Your task to perform on an android device: Go to Google Image 0: 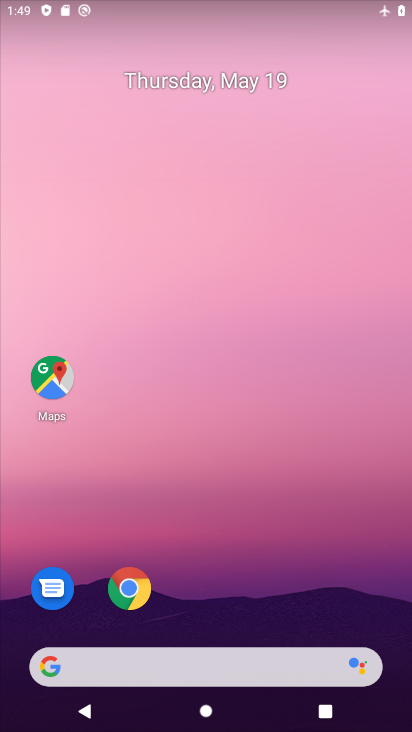
Step 0: drag from (205, 534) to (207, 52)
Your task to perform on an android device: Go to Google Image 1: 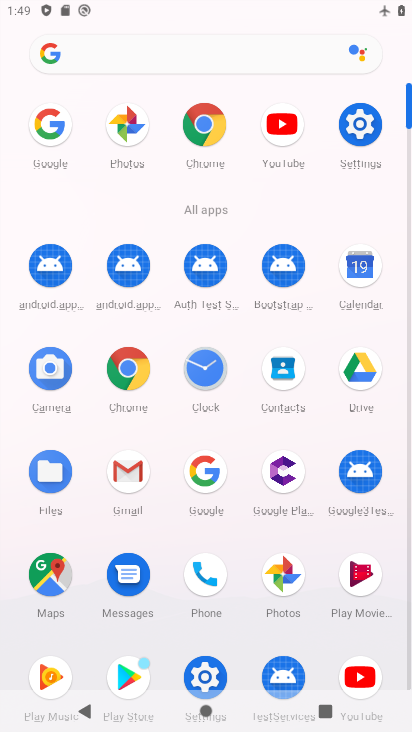
Step 1: click (51, 124)
Your task to perform on an android device: Go to Google Image 2: 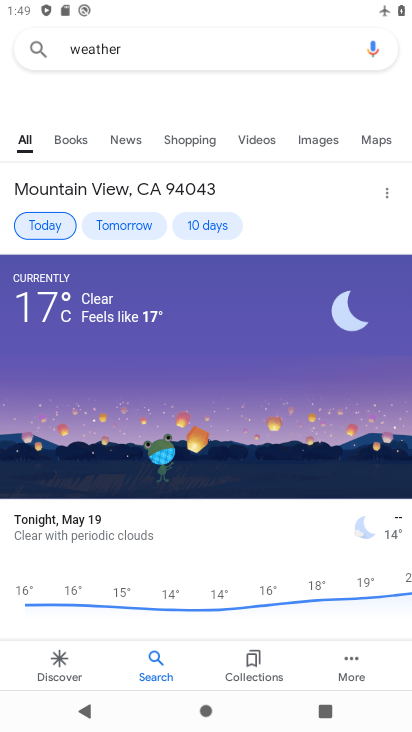
Step 2: task complete